Your task to perform on an android device: Open network settings Image 0: 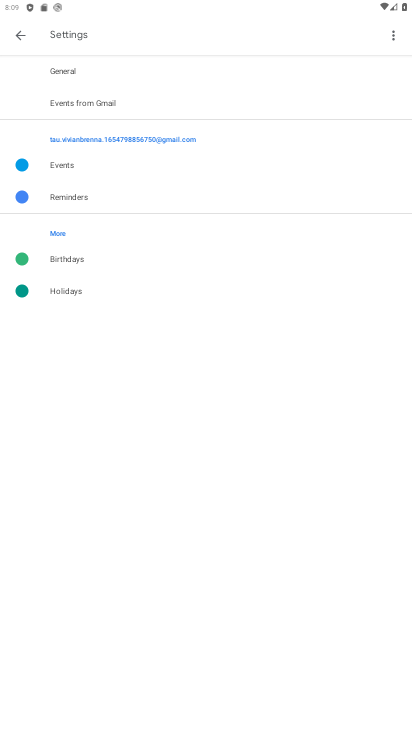
Step 0: press home button
Your task to perform on an android device: Open network settings Image 1: 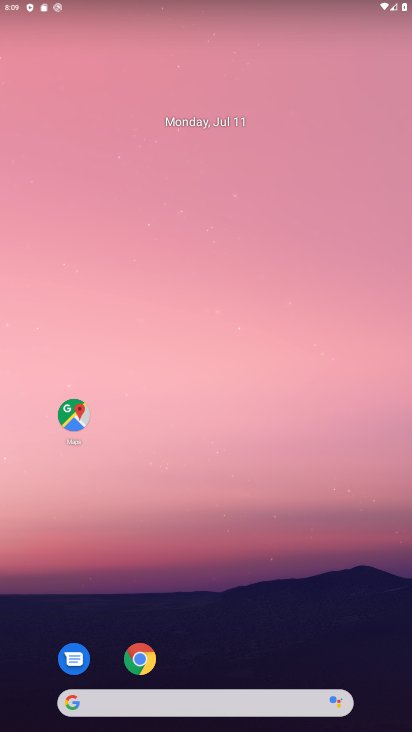
Step 1: drag from (32, 692) to (175, 21)
Your task to perform on an android device: Open network settings Image 2: 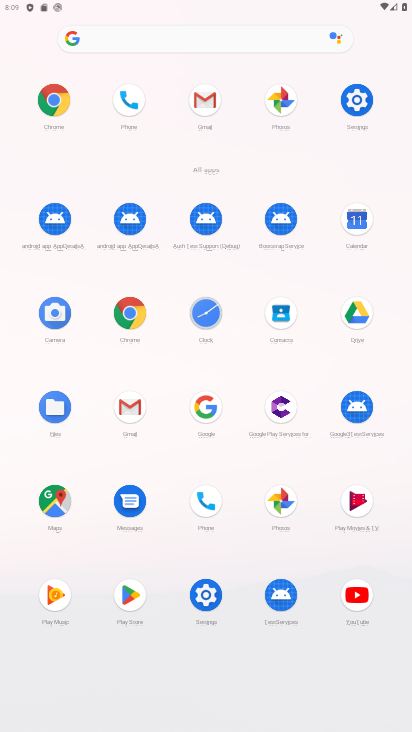
Step 2: click (195, 592)
Your task to perform on an android device: Open network settings Image 3: 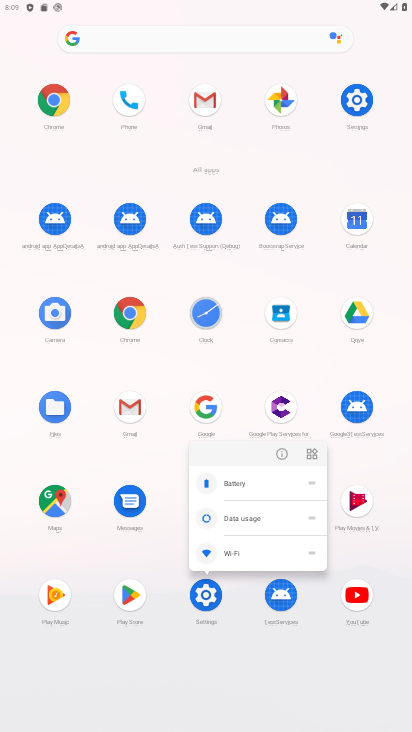
Step 3: click (195, 604)
Your task to perform on an android device: Open network settings Image 4: 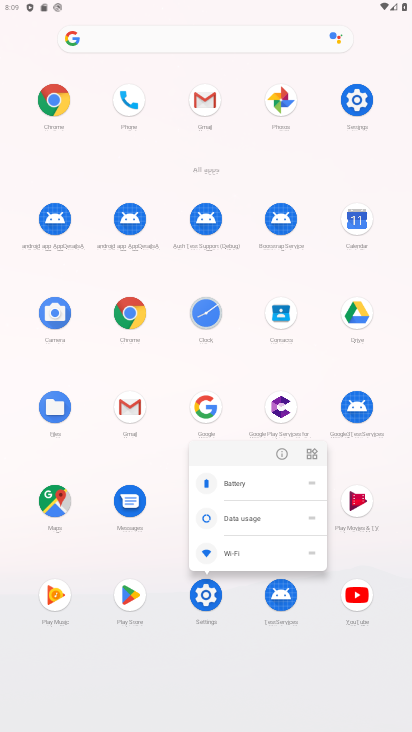
Step 4: click (202, 592)
Your task to perform on an android device: Open network settings Image 5: 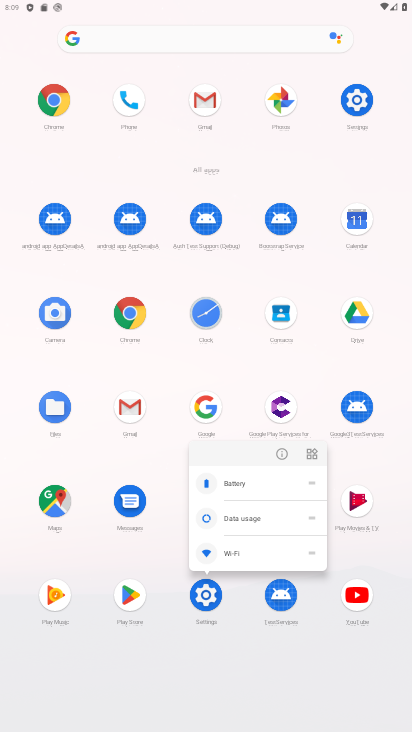
Step 5: click (194, 592)
Your task to perform on an android device: Open network settings Image 6: 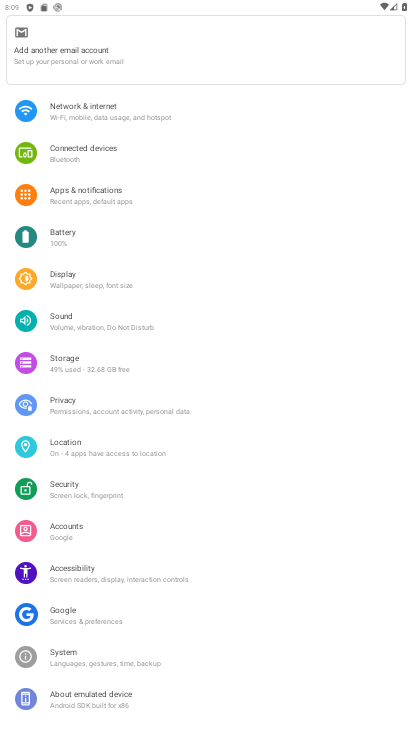
Step 6: click (83, 111)
Your task to perform on an android device: Open network settings Image 7: 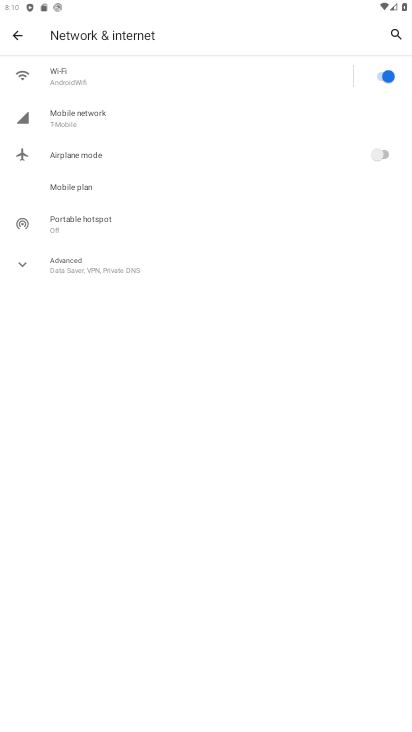
Step 7: task complete